Your task to perform on an android device: Open Maps and search for coffee Image 0: 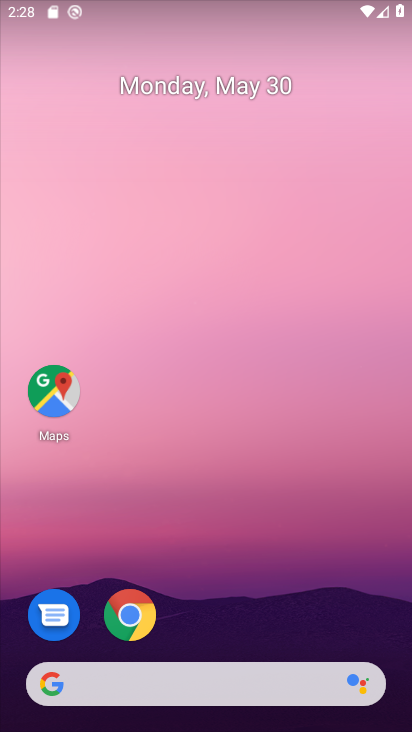
Step 0: click (47, 385)
Your task to perform on an android device: Open Maps and search for coffee Image 1: 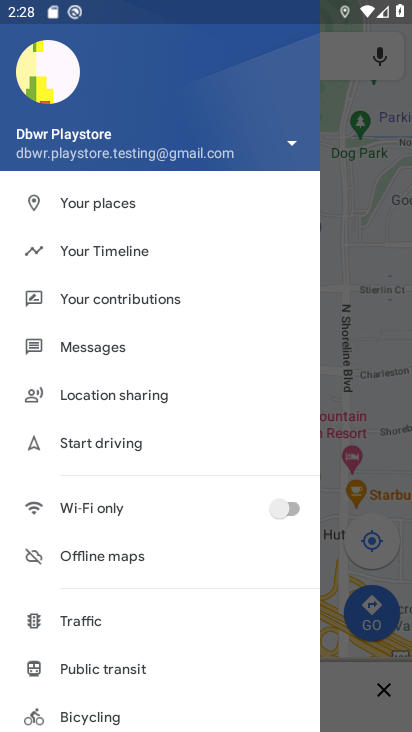
Step 1: click (359, 289)
Your task to perform on an android device: Open Maps and search for coffee Image 2: 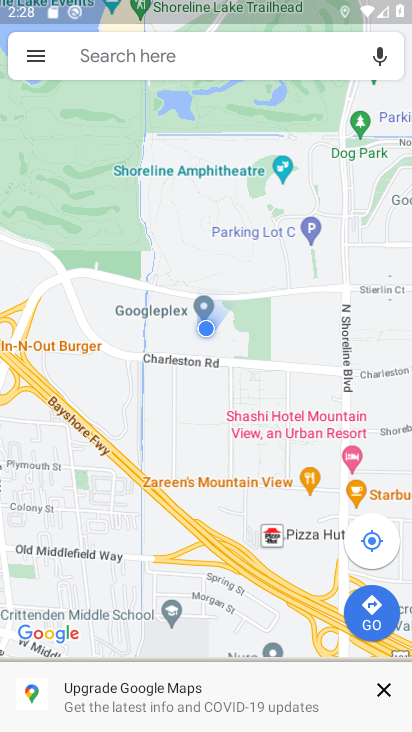
Step 2: click (150, 47)
Your task to perform on an android device: Open Maps and search for coffee Image 3: 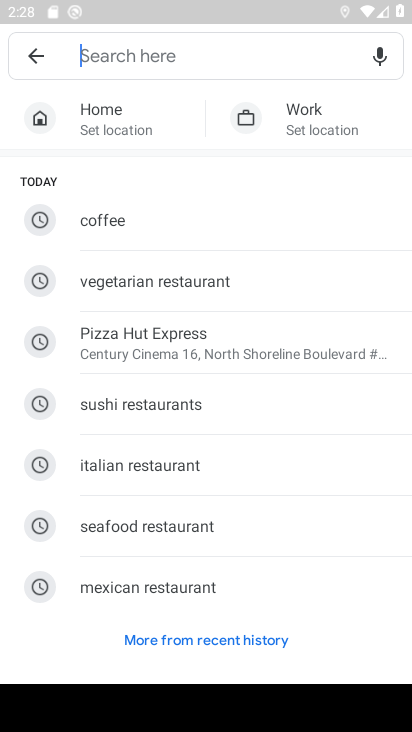
Step 3: click (120, 220)
Your task to perform on an android device: Open Maps and search for coffee Image 4: 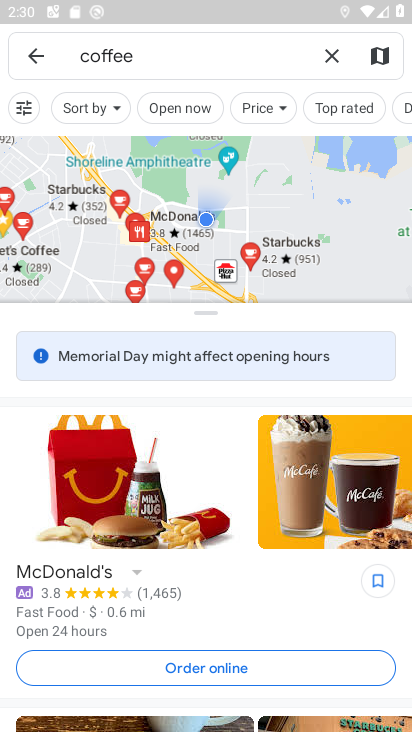
Step 4: task complete